Your task to perform on an android device: turn off translation in the chrome app Image 0: 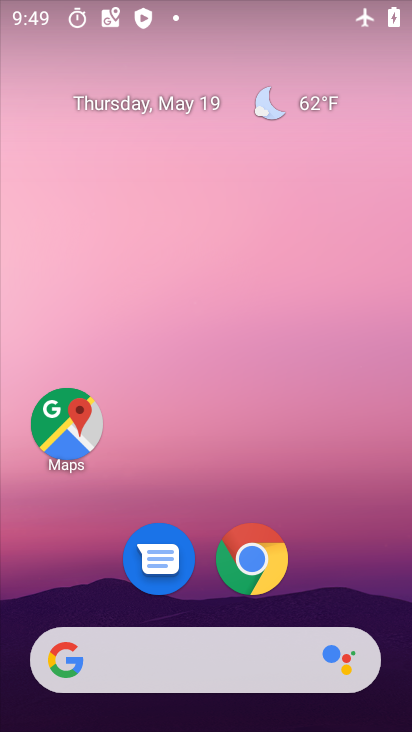
Step 0: click (249, 552)
Your task to perform on an android device: turn off translation in the chrome app Image 1: 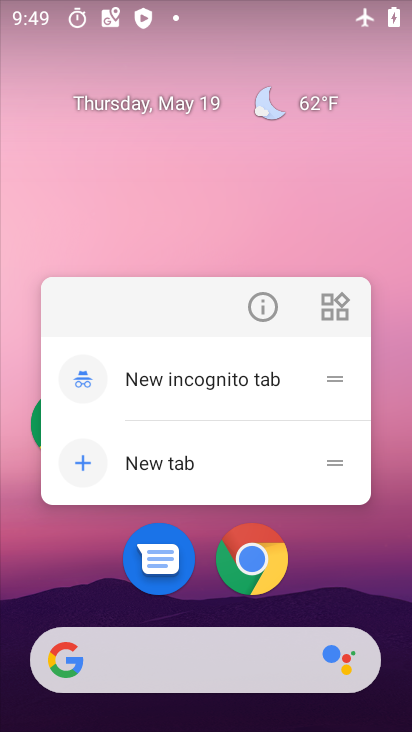
Step 1: click (260, 569)
Your task to perform on an android device: turn off translation in the chrome app Image 2: 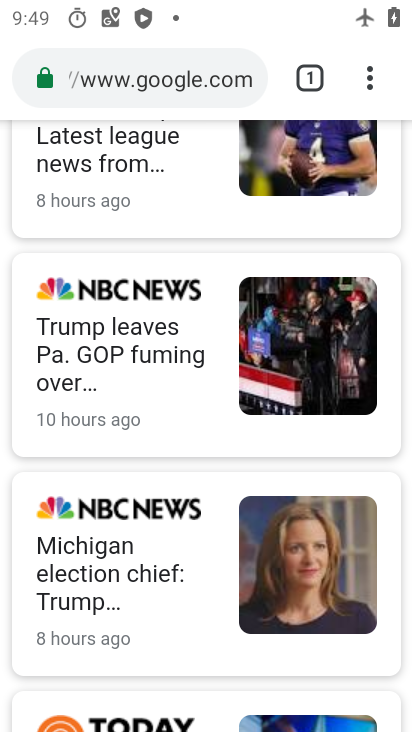
Step 2: drag from (377, 79) to (92, 626)
Your task to perform on an android device: turn off translation in the chrome app Image 3: 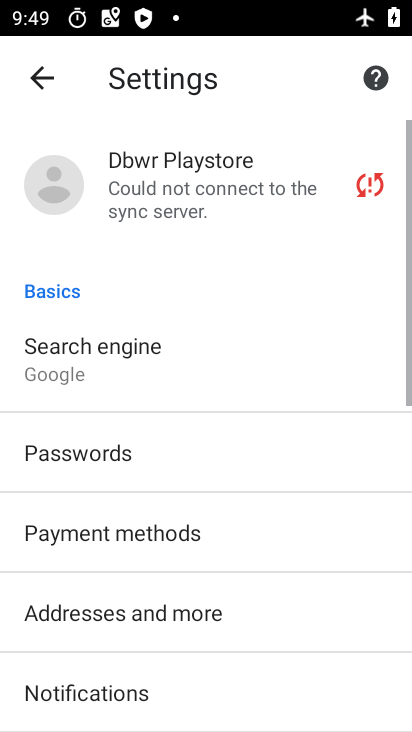
Step 3: drag from (192, 654) to (189, 243)
Your task to perform on an android device: turn off translation in the chrome app Image 4: 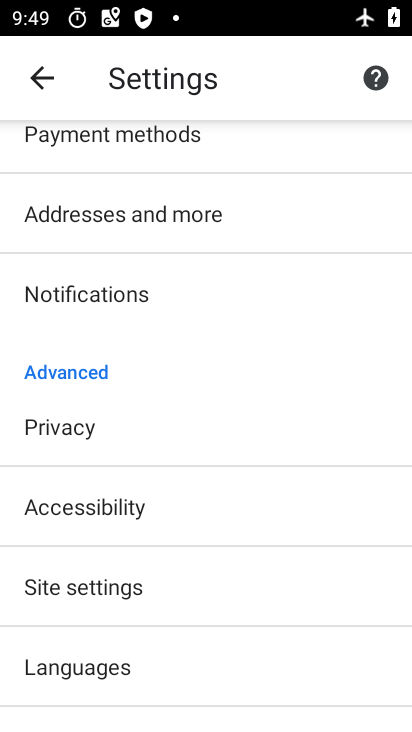
Step 4: click (130, 674)
Your task to perform on an android device: turn off translation in the chrome app Image 5: 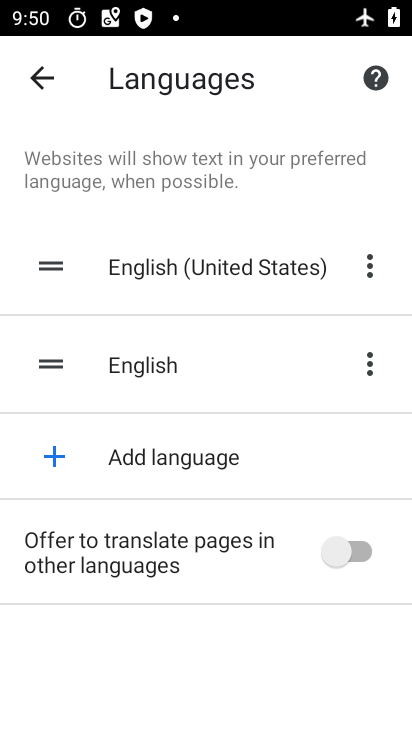
Step 5: task complete